Your task to perform on an android device: allow notifications from all sites in the chrome app Image 0: 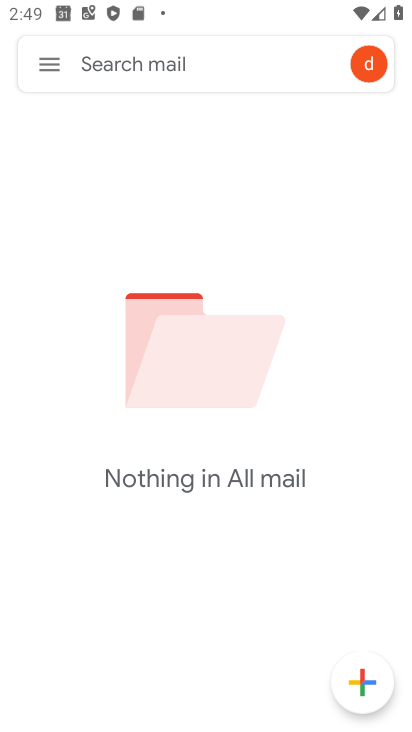
Step 0: press back button
Your task to perform on an android device: allow notifications from all sites in the chrome app Image 1: 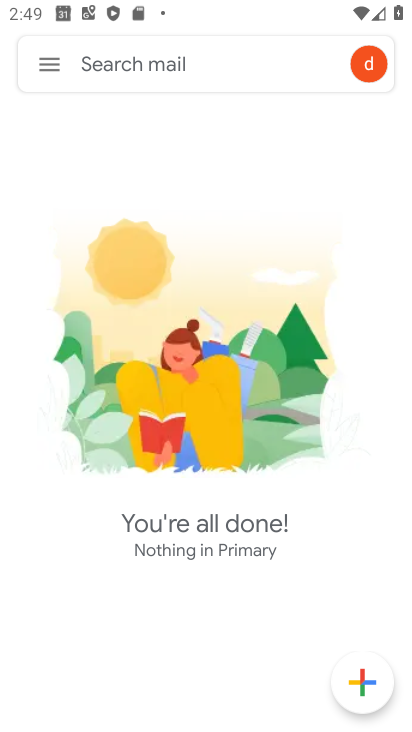
Step 1: press home button
Your task to perform on an android device: allow notifications from all sites in the chrome app Image 2: 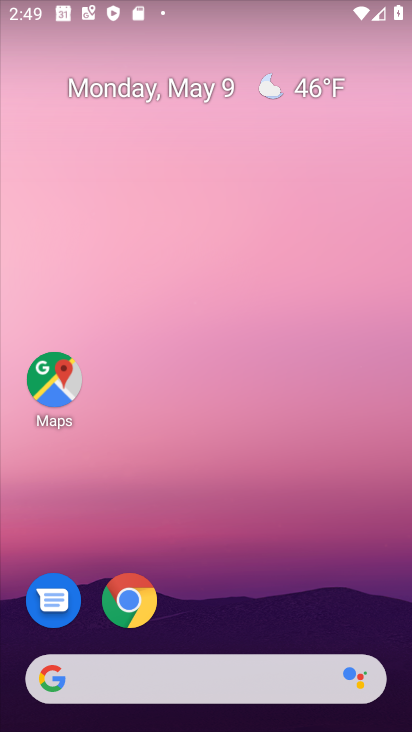
Step 2: click (129, 598)
Your task to perform on an android device: allow notifications from all sites in the chrome app Image 3: 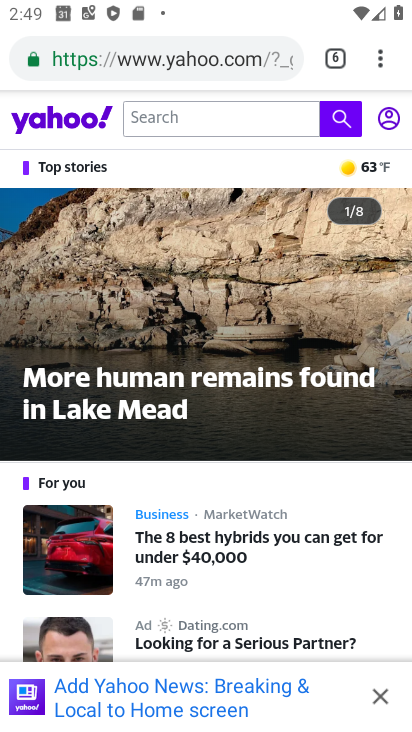
Step 3: drag from (382, 45) to (170, 625)
Your task to perform on an android device: allow notifications from all sites in the chrome app Image 4: 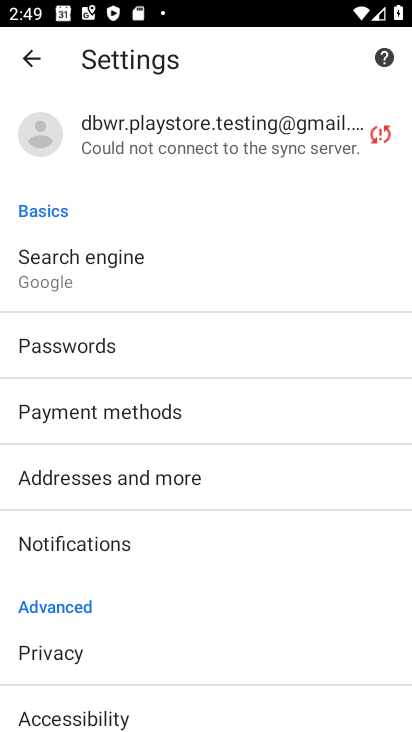
Step 4: click (99, 544)
Your task to perform on an android device: allow notifications from all sites in the chrome app Image 5: 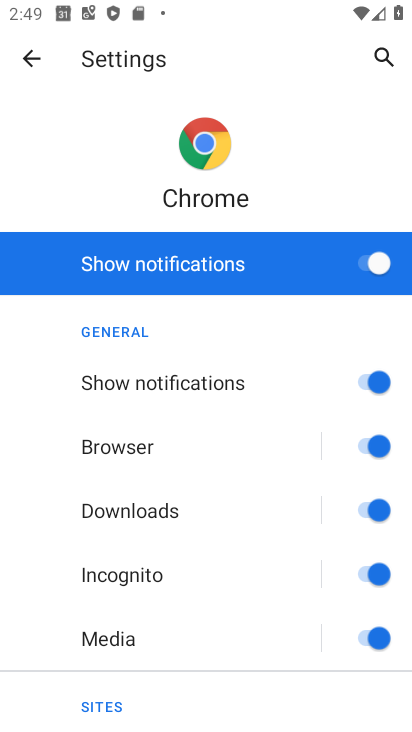
Step 5: task complete